Your task to perform on an android device: stop showing notifications on the lock screen Image 0: 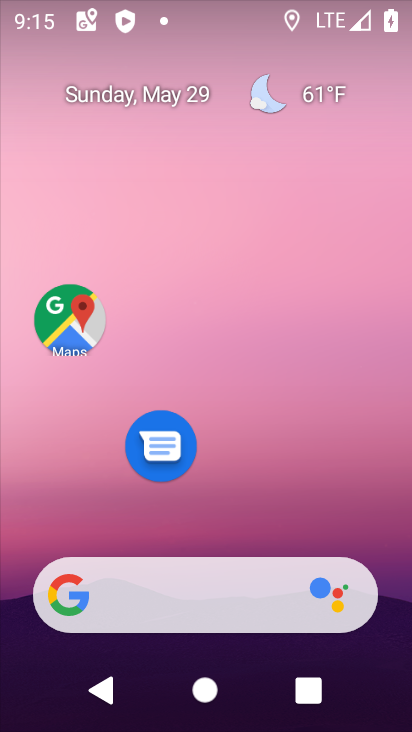
Step 0: drag from (214, 541) to (216, 149)
Your task to perform on an android device: stop showing notifications on the lock screen Image 1: 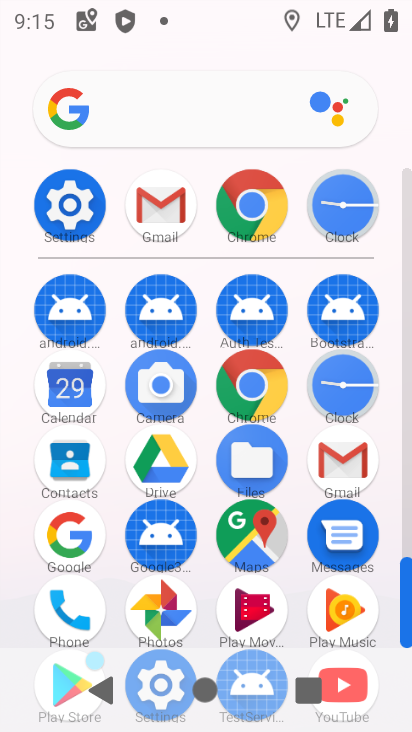
Step 1: click (96, 224)
Your task to perform on an android device: stop showing notifications on the lock screen Image 2: 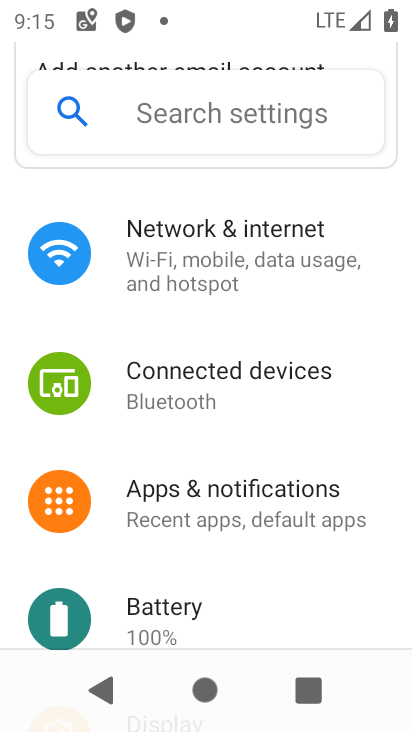
Step 2: click (235, 471)
Your task to perform on an android device: stop showing notifications on the lock screen Image 3: 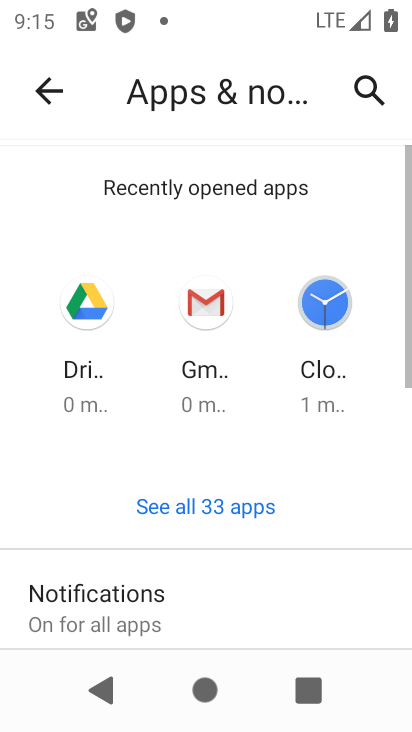
Step 3: drag from (219, 590) to (223, 290)
Your task to perform on an android device: stop showing notifications on the lock screen Image 4: 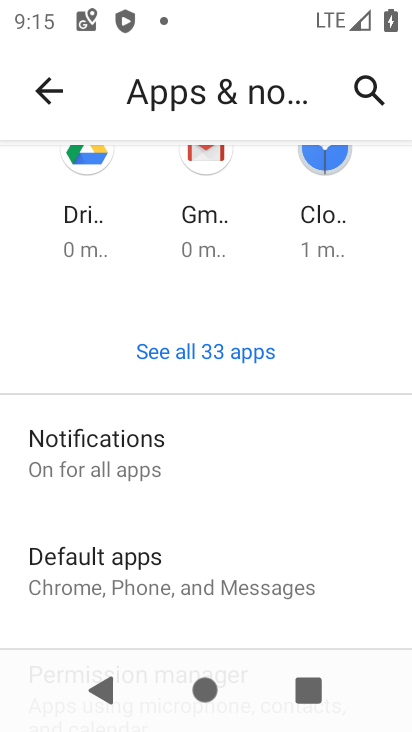
Step 4: click (192, 451)
Your task to perform on an android device: stop showing notifications on the lock screen Image 5: 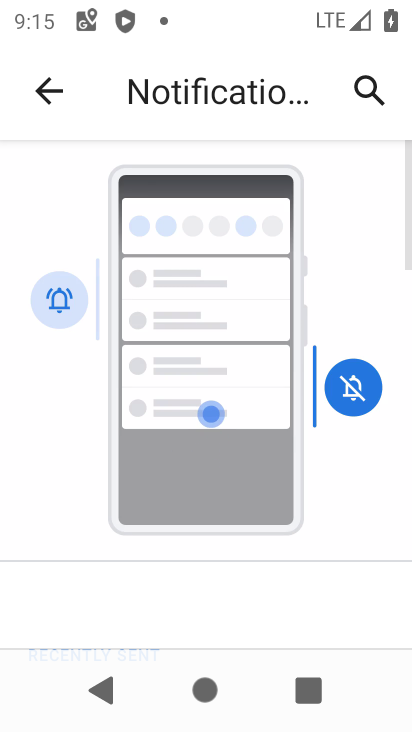
Step 5: drag from (224, 582) to (232, 162)
Your task to perform on an android device: stop showing notifications on the lock screen Image 6: 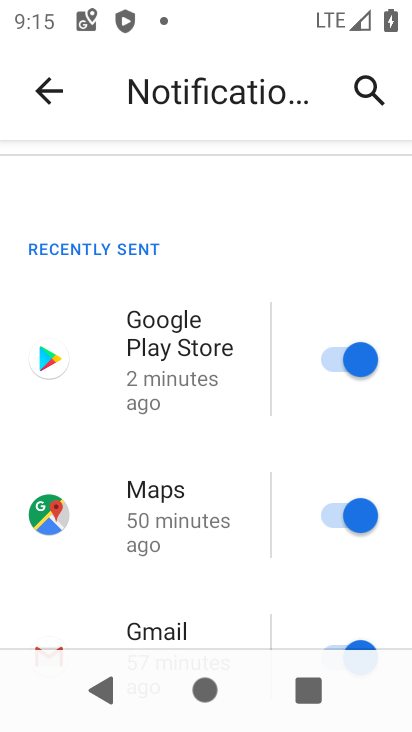
Step 6: drag from (238, 475) to (251, 265)
Your task to perform on an android device: stop showing notifications on the lock screen Image 7: 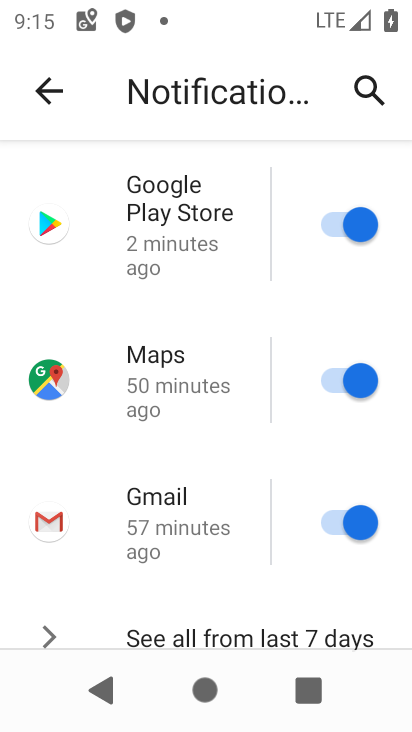
Step 7: drag from (226, 563) to (231, 237)
Your task to perform on an android device: stop showing notifications on the lock screen Image 8: 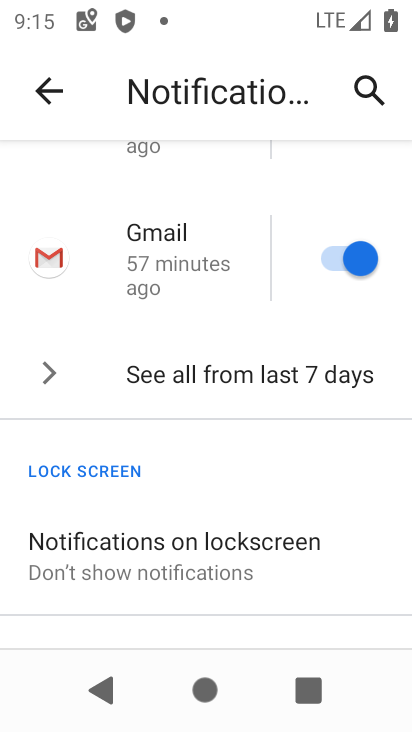
Step 8: drag from (231, 540) to (228, 351)
Your task to perform on an android device: stop showing notifications on the lock screen Image 9: 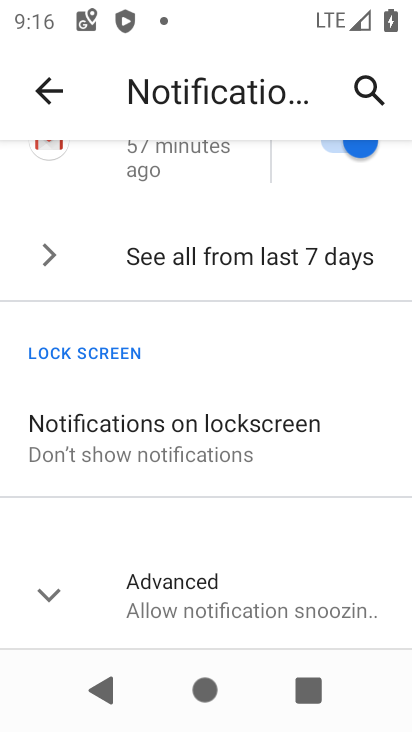
Step 9: click (217, 419)
Your task to perform on an android device: stop showing notifications on the lock screen Image 10: 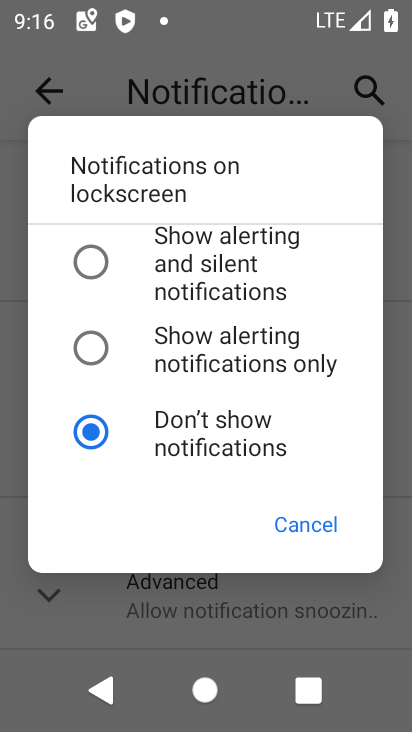
Step 10: task complete